Your task to perform on an android device: check google app version Image 0: 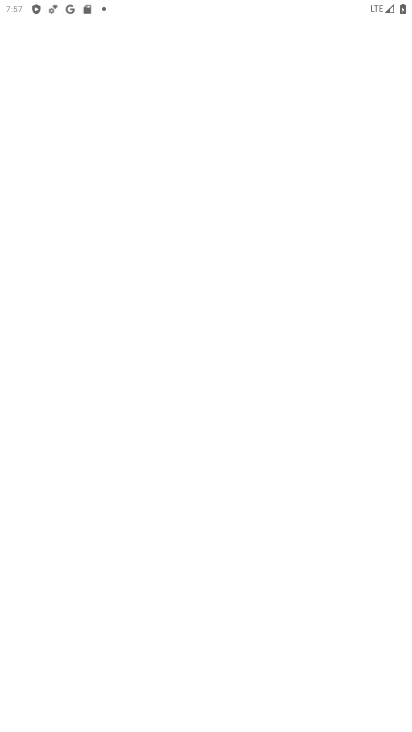
Step 0: press home button
Your task to perform on an android device: check google app version Image 1: 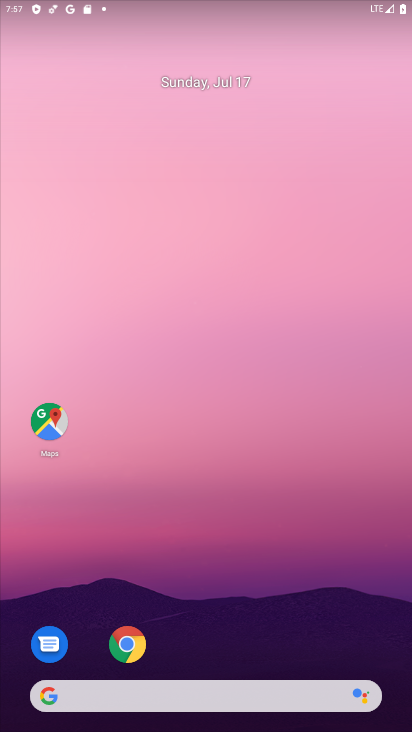
Step 1: drag from (252, 633) to (280, 23)
Your task to perform on an android device: check google app version Image 2: 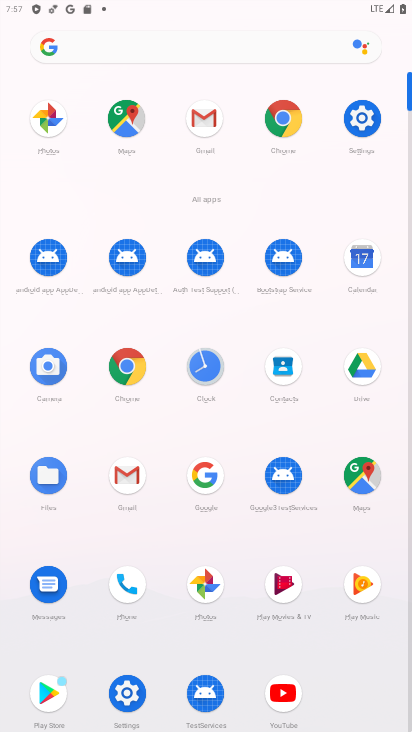
Step 2: click (200, 471)
Your task to perform on an android device: check google app version Image 3: 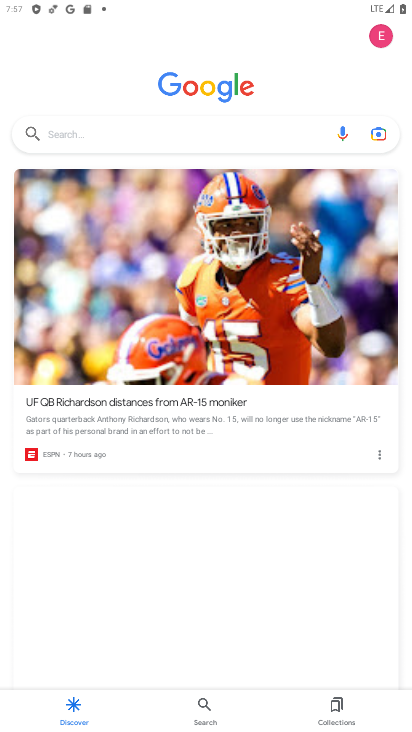
Step 3: click (379, 28)
Your task to perform on an android device: check google app version Image 4: 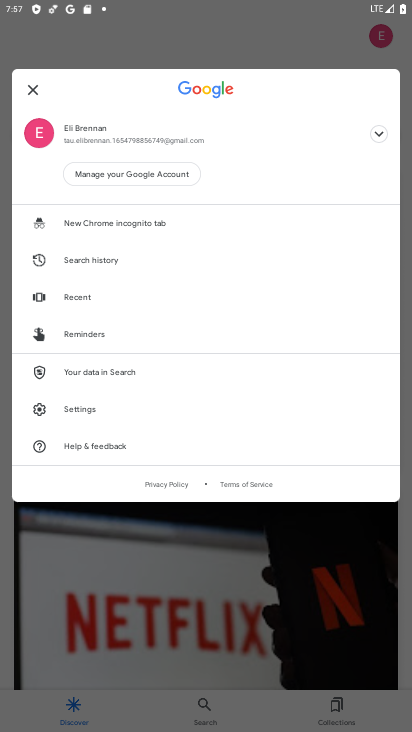
Step 4: click (66, 402)
Your task to perform on an android device: check google app version Image 5: 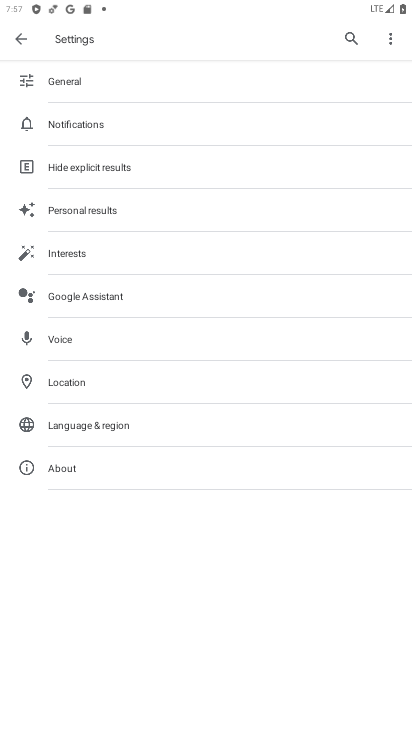
Step 5: click (107, 464)
Your task to perform on an android device: check google app version Image 6: 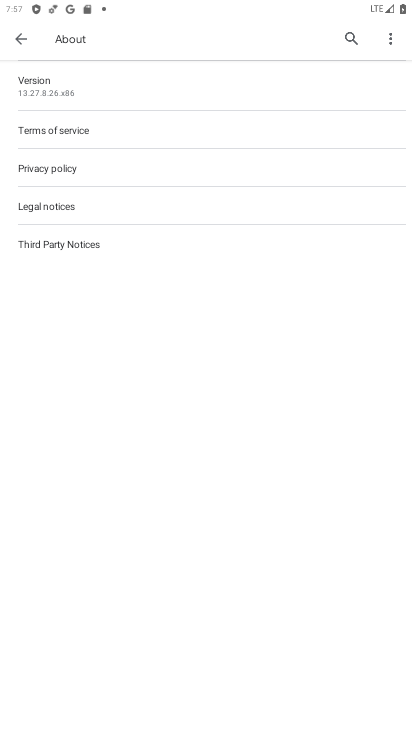
Step 6: click (91, 85)
Your task to perform on an android device: check google app version Image 7: 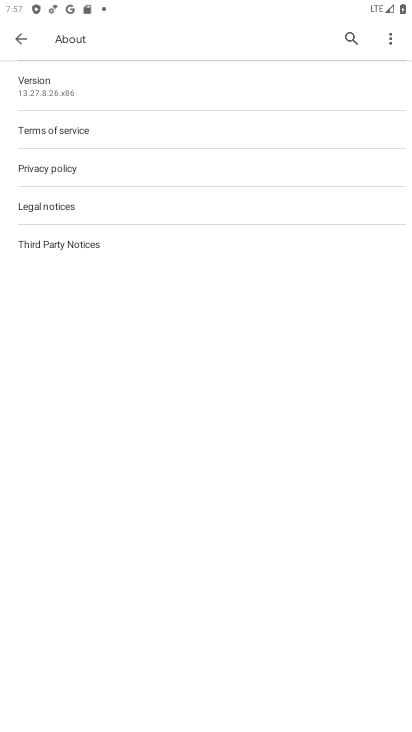
Step 7: task complete